Your task to perform on an android device: change notification settings in the gmail app Image 0: 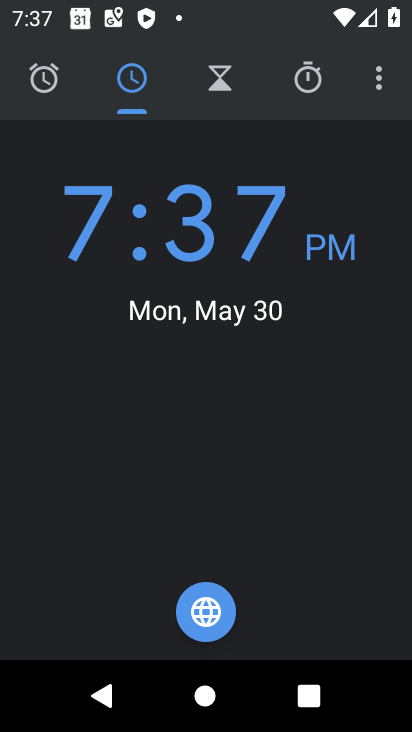
Step 0: press home button
Your task to perform on an android device: change notification settings in the gmail app Image 1: 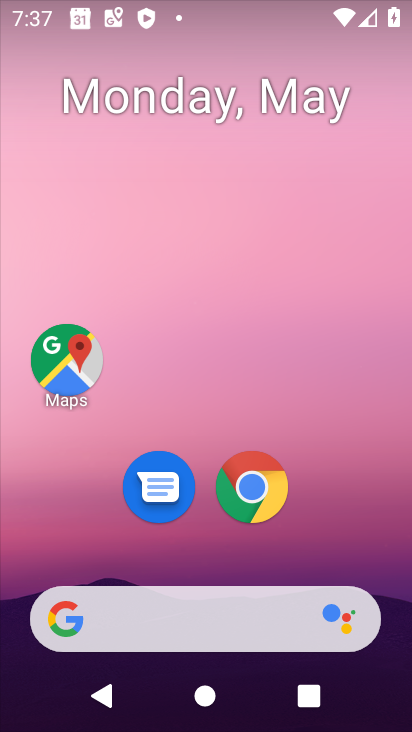
Step 1: drag from (378, 552) to (376, 297)
Your task to perform on an android device: change notification settings in the gmail app Image 2: 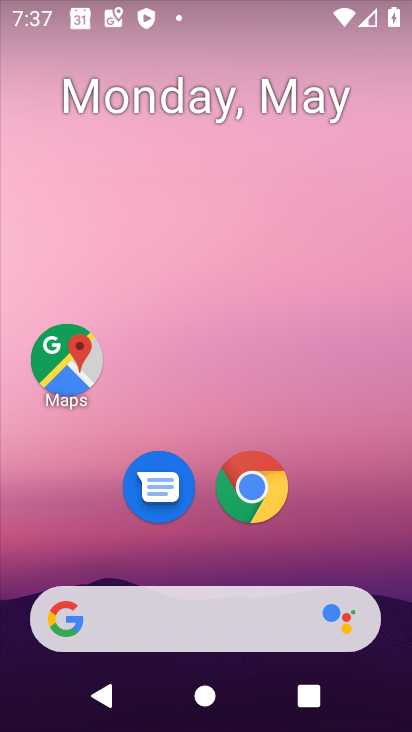
Step 2: drag from (358, 532) to (358, 92)
Your task to perform on an android device: change notification settings in the gmail app Image 3: 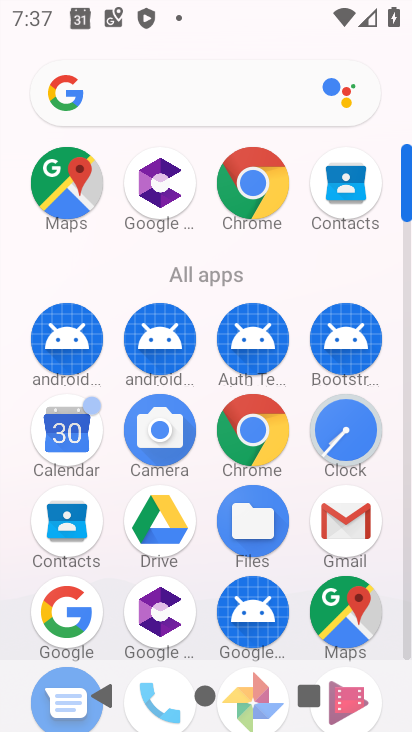
Step 3: click (354, 522)
Your task to perform on an android device: change notification settings in the gmail app Image 4: 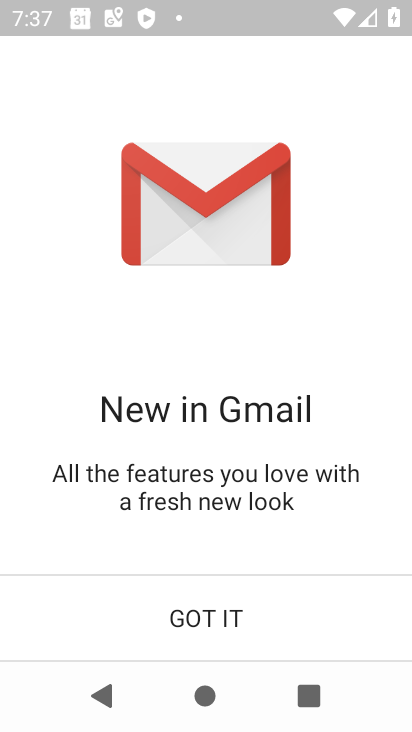
Step 4: click (259, 601)
Your task to perform on an android device: change notification settings in the gmail app Image 5: 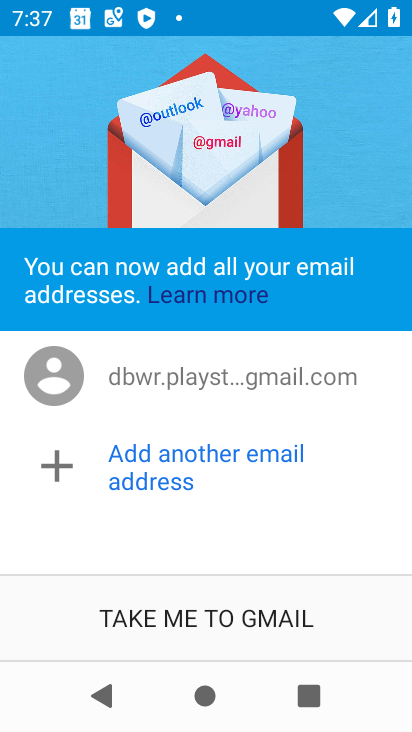
Step 5: click (242, 618)
Your task to perform on an android device: change notification settings in the gmail app Image 6: 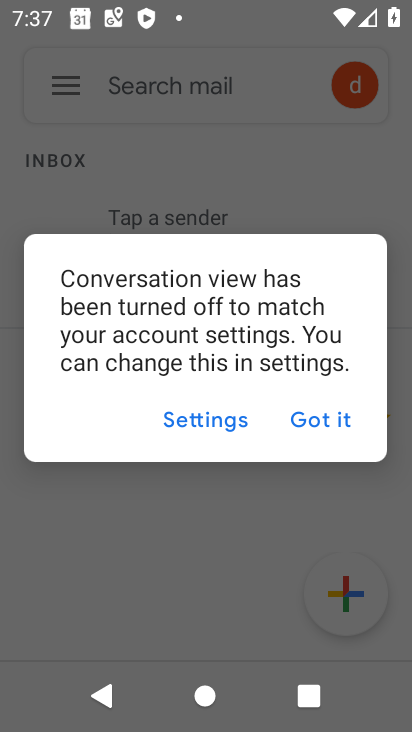
Step 6: click (320, 429)
Your task to perform on an android device: change notification settings in the gmail app Image 7: 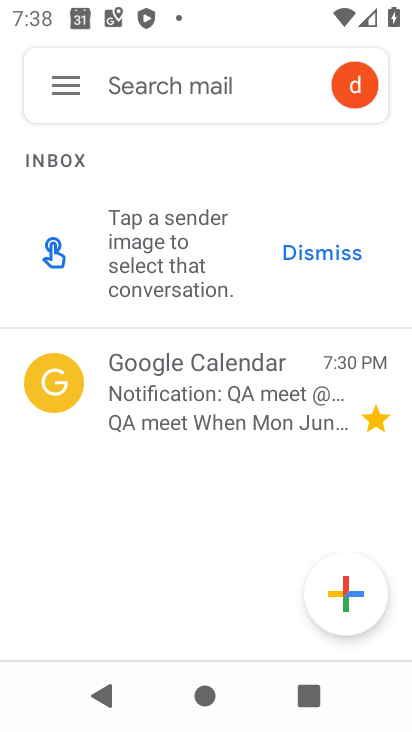
Step 7: click (71, 89)
Your task to perform on an android device: change notification settings in the gmail app Image 8: 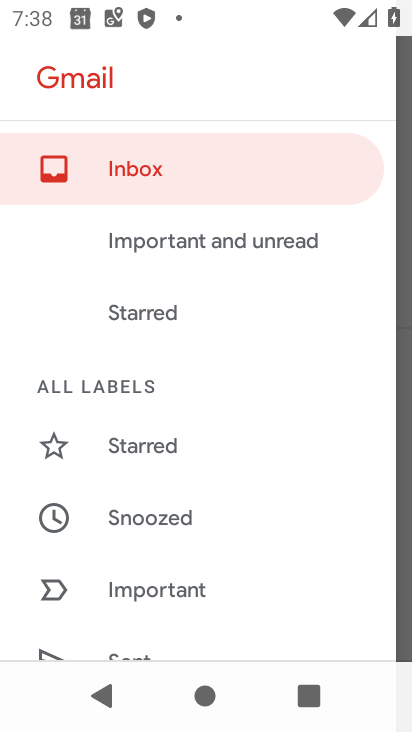
Step 8: drag from (321, 513) to (336, 430)
Your task to perform on an android device: change notification settings in the gmail app Image 9: 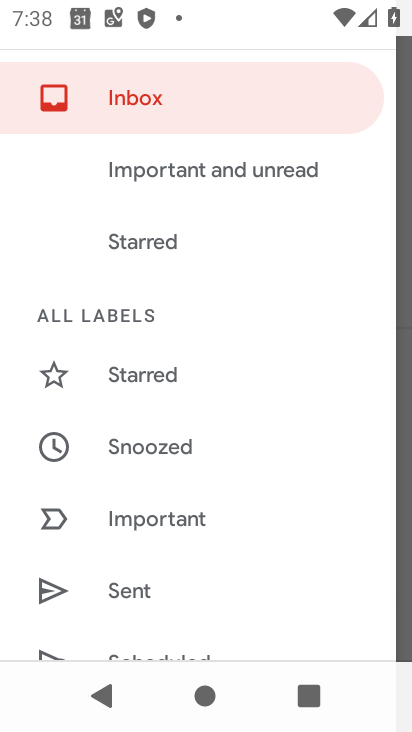
Step 9: drag from (346, 530) to (346, 438)
Your task to perform on an android device: change notification settings in the gmail app Image 10: 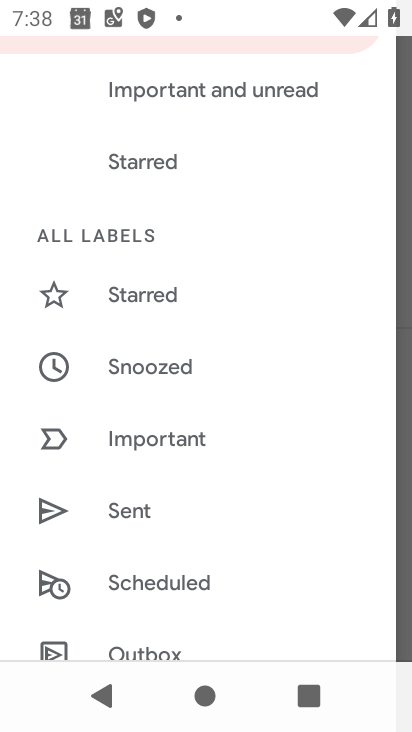
Step 10: drag from (336, 545) to (344, 457)
Your task to perform on an android device: change notification settings in the gmail app Image 11: 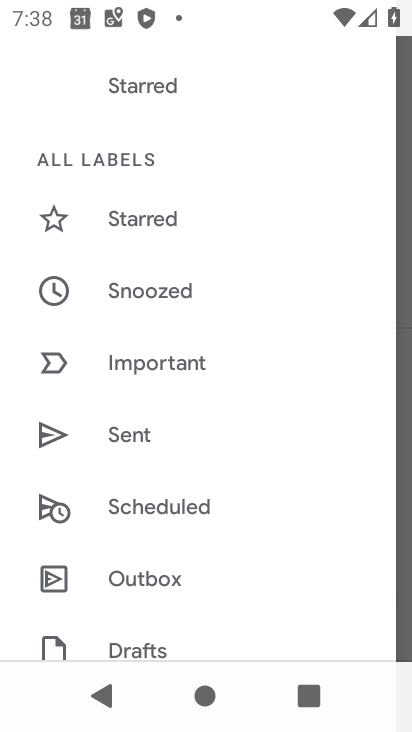
Step 11: drag from (341, 565) to (349, 481)
Your task to perform on an android device: change notification settings in the gmail app Image 12: 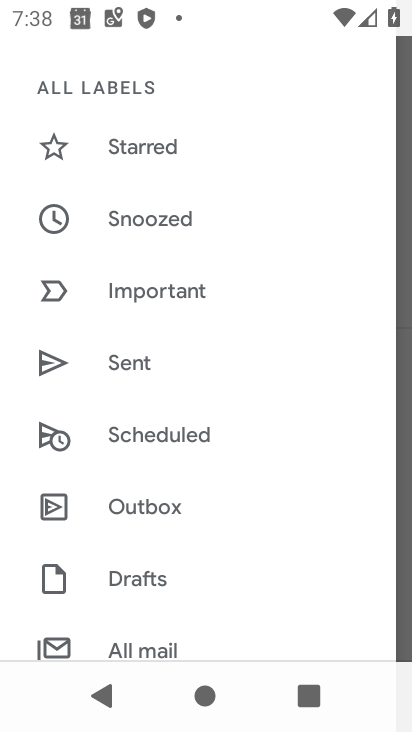
Step 12: drag from (339, 532) to (343, 447)
Your task to perform on an android device: change notification settings in the gmail app Image 13: 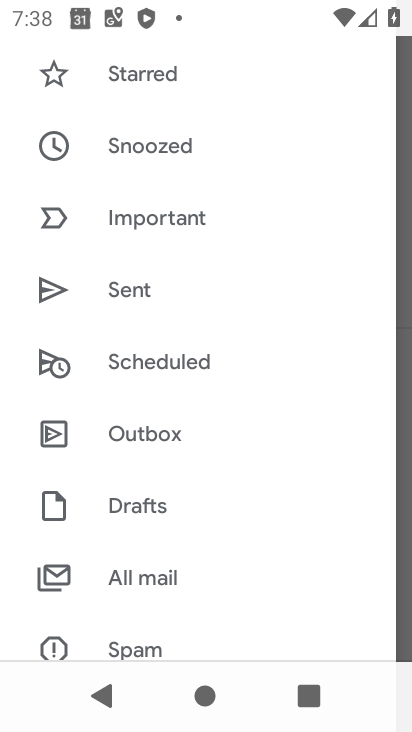
Step 13: drag from (337, 547) to (346, 501)
Your task to perform on an android device: change notification settings in the gmail app Image 14: 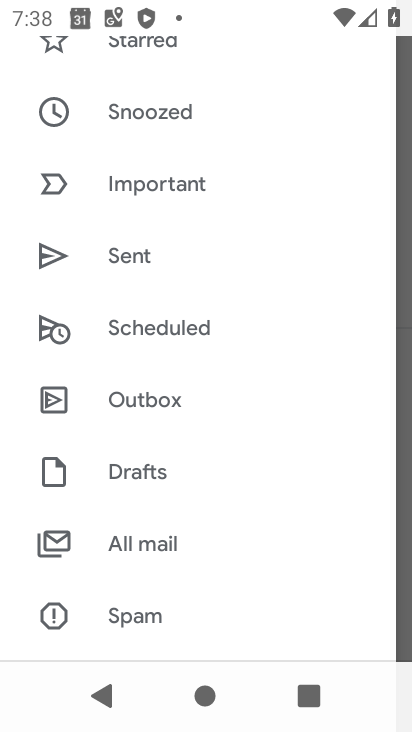
Step 14: drag from (349, 486) to (350, 398)
Your task to perform on an android device: change notification settings in the gmail app Image 15: 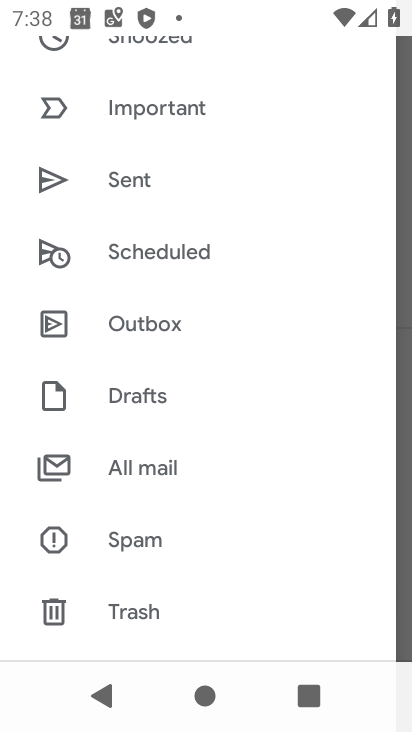
Step 15: drag from (324, 534) to (340, 394)
Your task to perform on an android device: change notification settings in the gmail app Image 16: 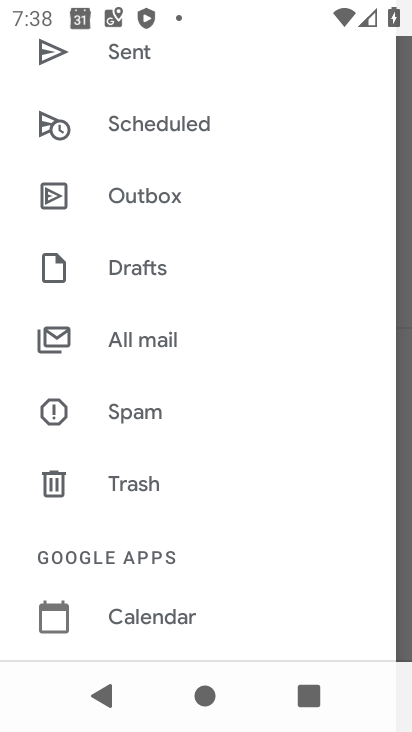
Step 16: drag from (310, 579) to (329, 449)
Your task to perform on an android device: change notification settings in the gmail app Image 17: 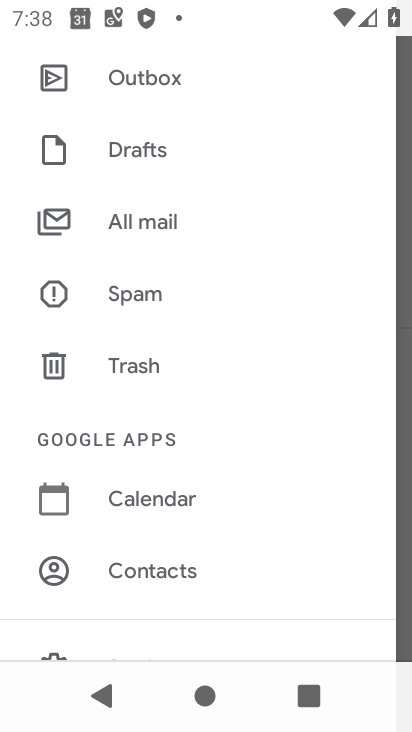
Step 17: drag from (331, 582) to (337, 437)
Your task to perform on an android device: change notification settings in the gmail app Image 18: 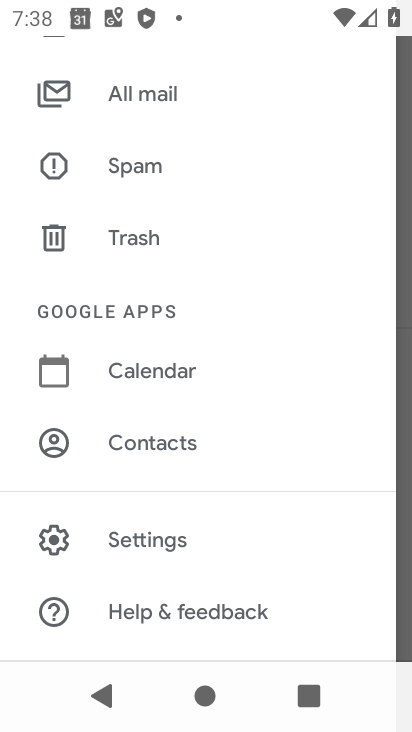
Step 18: drag from (316, 524) to (310, 381)
Your task to perform on an android device: change notification settings in the gmail app Image 19: 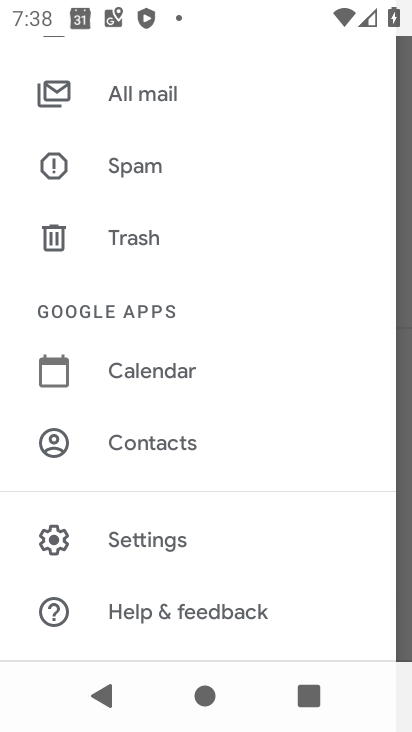
Step 19: click (198, 537)
Your task to perform on an android device: change notification settings in the gmail app Image 20: 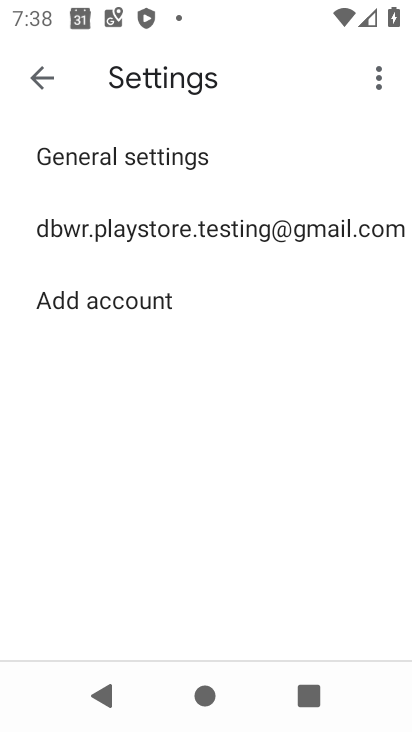
Step 20: click (219, 236)
Your task to perform on an android device: change notification settings in the gmail app Image 21: 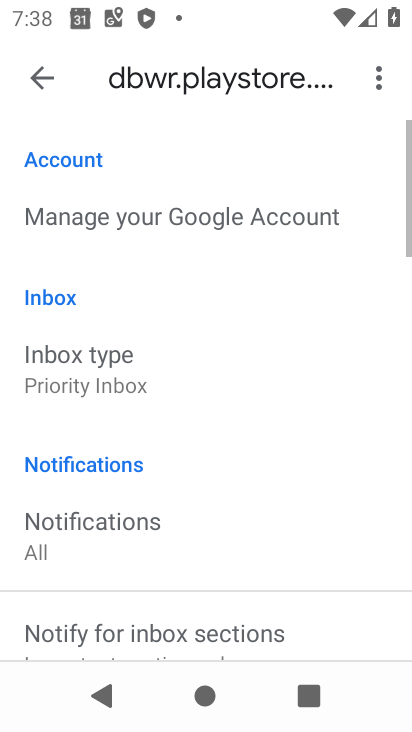
Step 21: drag from (299, 446) to (309, 308)
Your task to perform on an android device: change notification settings in the gmail app Image 22: 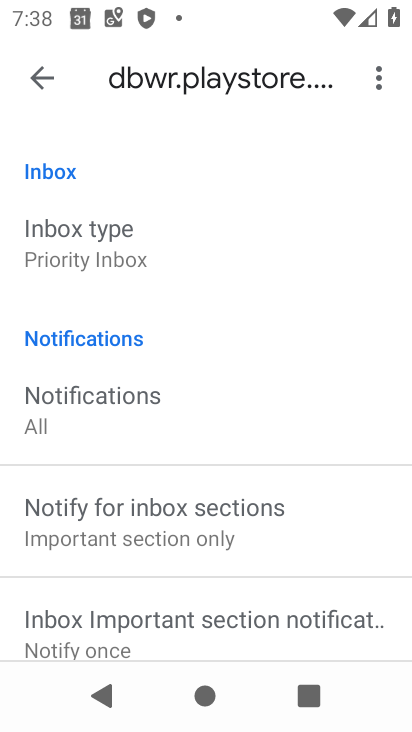
Step 22: drag from (290, 463) to (303, 391)
Your task to perform on an android device: change notification settings in the gmail app Image 23: 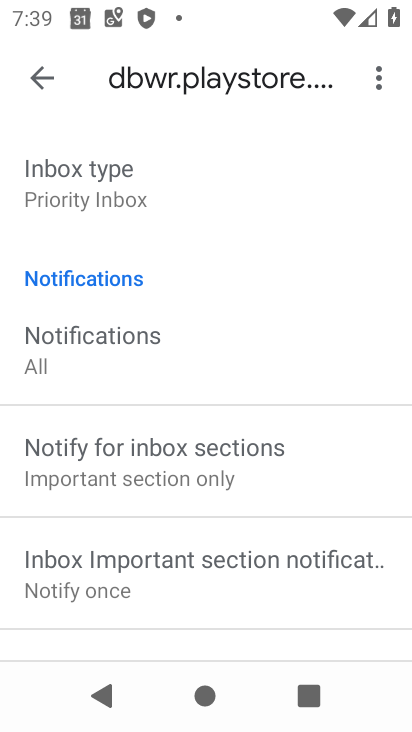
Step 23: drag from (285, 445) to (300, 357)
Your task to perform on an android device: change notification settings in the gmail app Image 24: 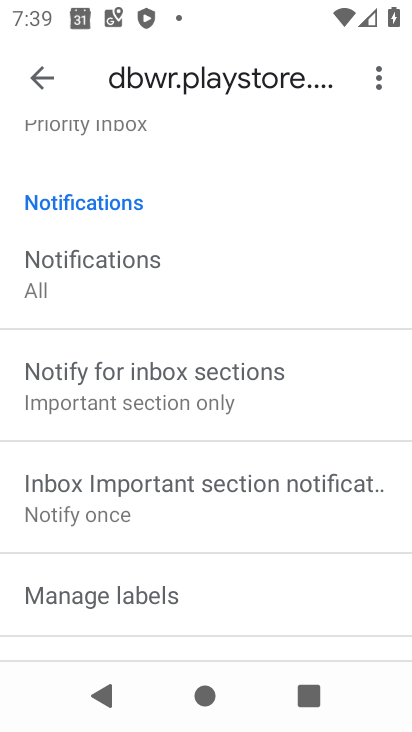
Step 24: drag from (279, 457) to (293, 395)
Your task to perform on an android device: change notification settings in the gmail app Image 25: 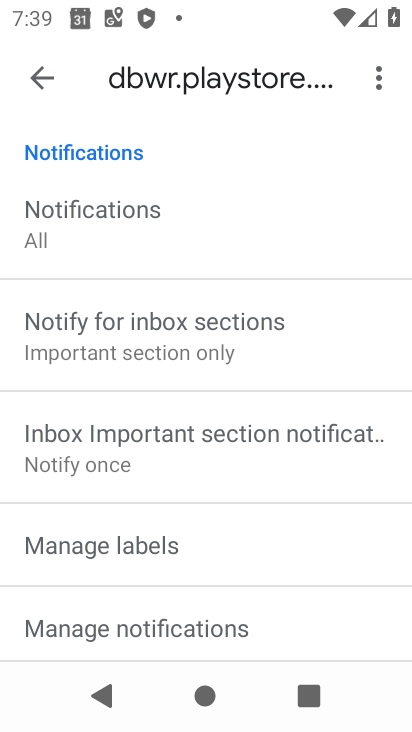
Step 25: drag from (293, 452) to (305, 377)
Your task to perform on an android device: change notification settings in the gmail app Image 26: 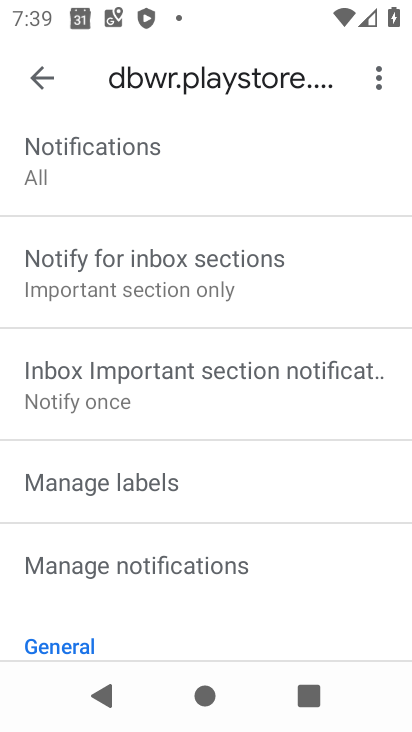
Step 26: drag from (305, 465) to (304, 351)
Your task to perform on an android device: change notification settings in the gmail app Image 27: 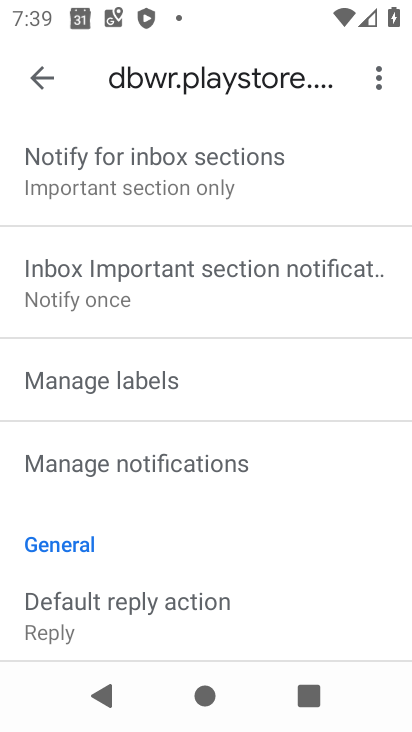
Step 27: drag from (304, 449) to (313, 374)
Your task to perform on an android device: change notification settings in the gmail app Image 28: 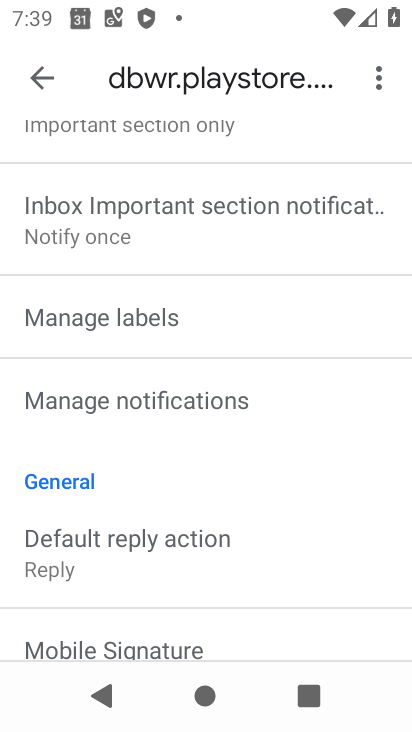
Step 28: drag from (307, 477) to (317, 378)
Your task to perform on an android device: change notification settings in the gmail app Image 29: 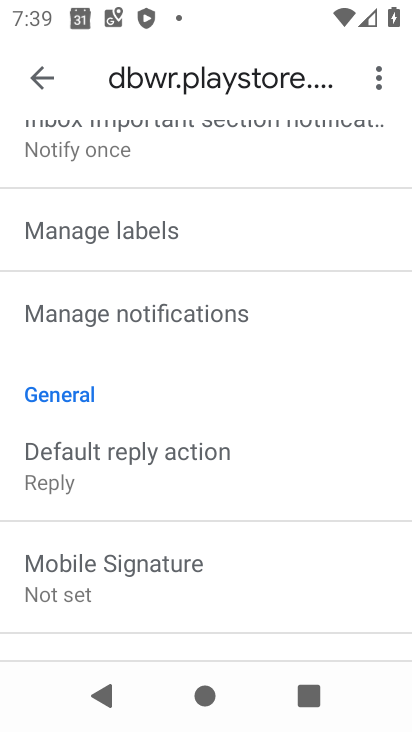
Step 29: click (227, 305)
Your task to perform on an android device: change notification settings in the gmail app Image 30: 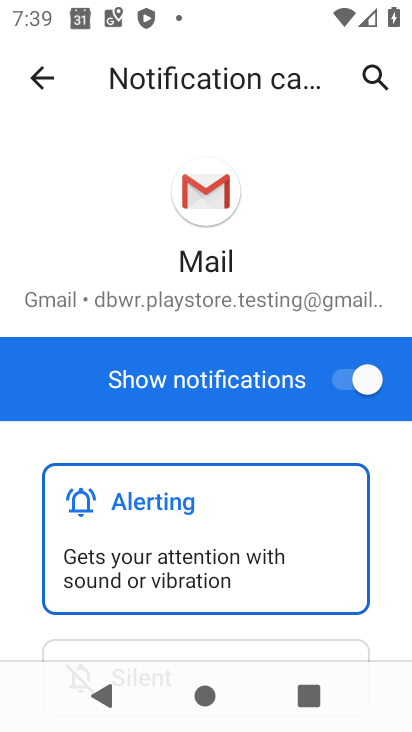
Step 30: click (350, 388)
Your task to perform on an android device: change notification settings in the gmail app Image 31: 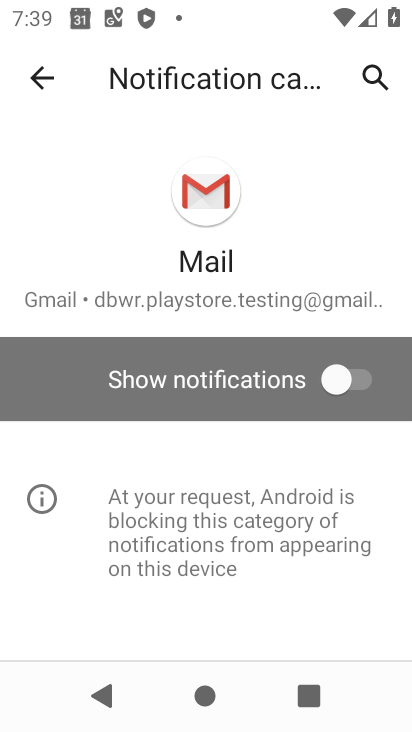
Step 31: task complete